Your task to perform on an android device: Search for vegetarian restaurants on Maps Image 0: 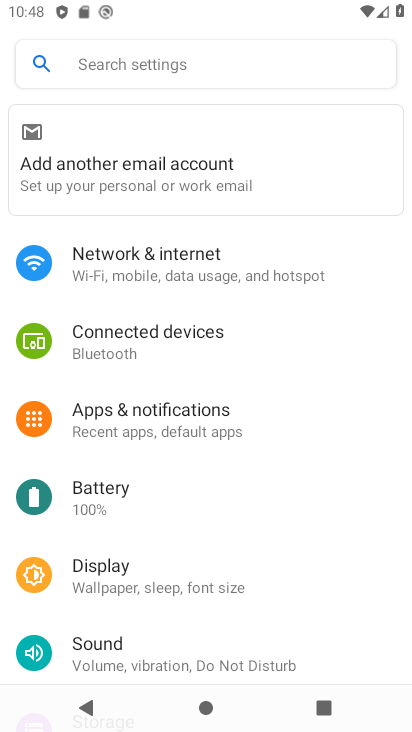
Step 0: press home button
Your task to perform on an android device: Search for vegetarian restaurants on Maps Image 1: 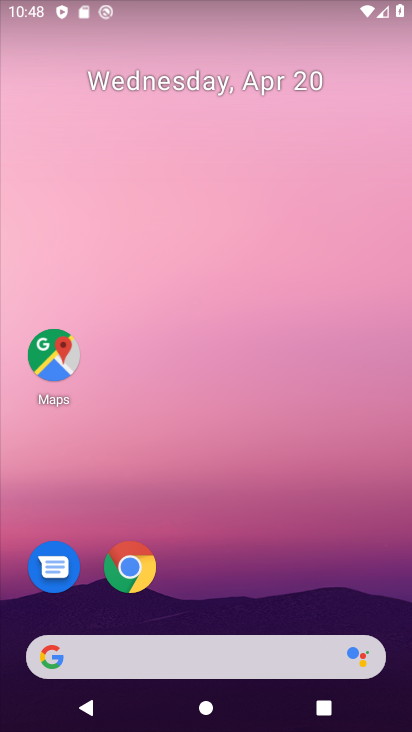
Step 1: click (43, 344)
Your task to perform on an android device: Search for vegetarian restaurants on Maps Image 2: 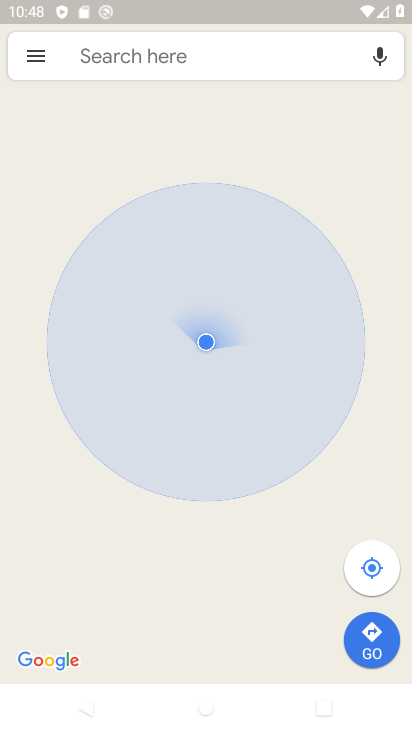
Step 2: click (200, 64)
Your task to perform on an android device: Search for vegetarian restaurants on Maps Image 3: 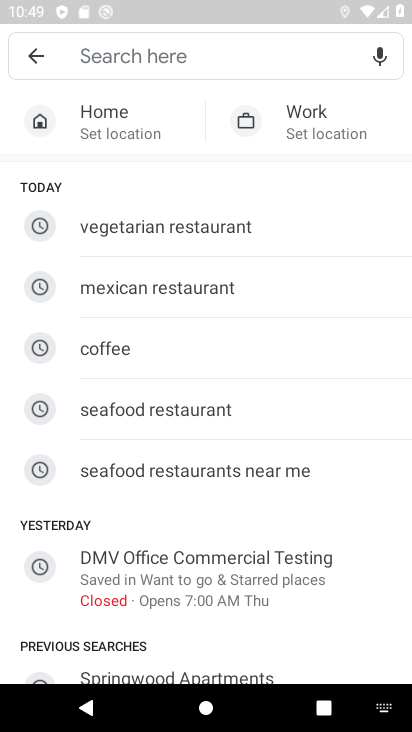
Step 3: type "vegetarian restaurants"
Your task to perform on an android device: Search for vegetarian restaurants on Maps Image 4: 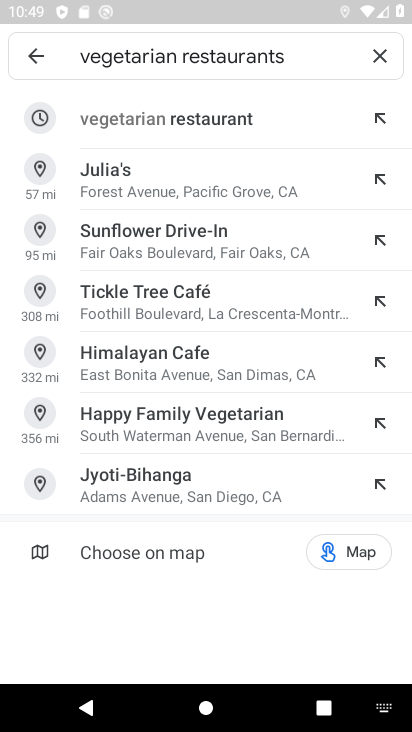
Step 4: click (217, 133)
Your task to perform on an android device: Search for vegetarian restaurants on Maps Image 5: 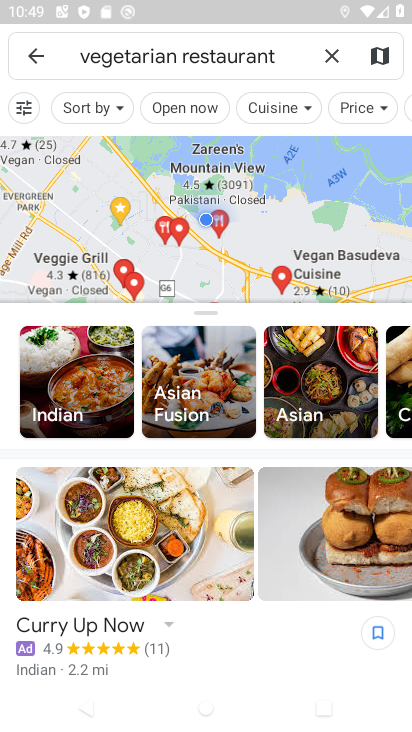
Step 5: task complete